Your task to perform on an android device: find which apps use the phone's location Image 0: 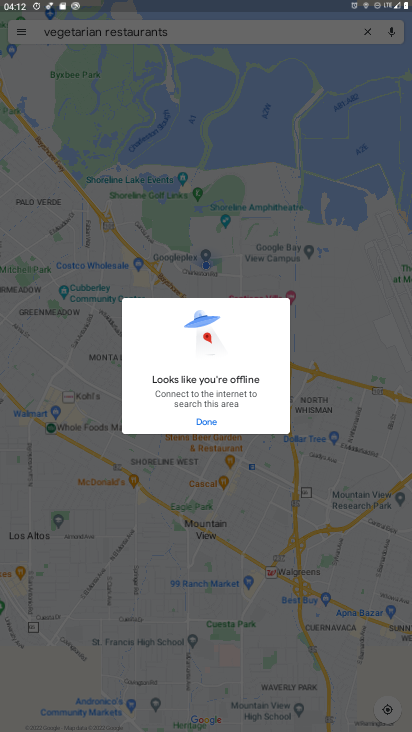
Step 0: press home button
Your task to perform on an android device: find which apps use the phone's location Image 1: 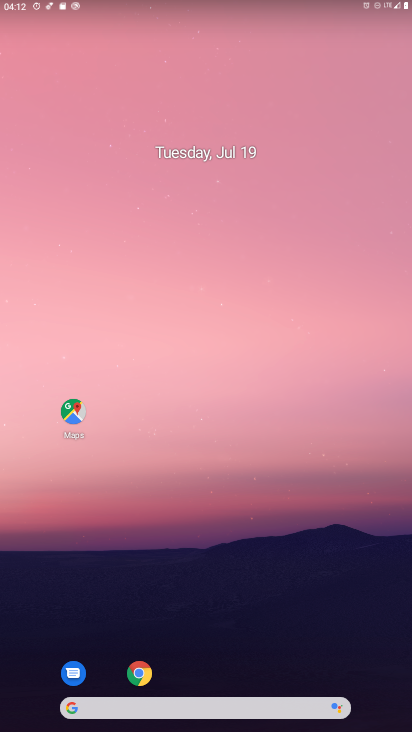
Step 1: drag from (202, 558) to (156, 36)
Your task to perform on an android device: find which apps use the phone's location Image 2: 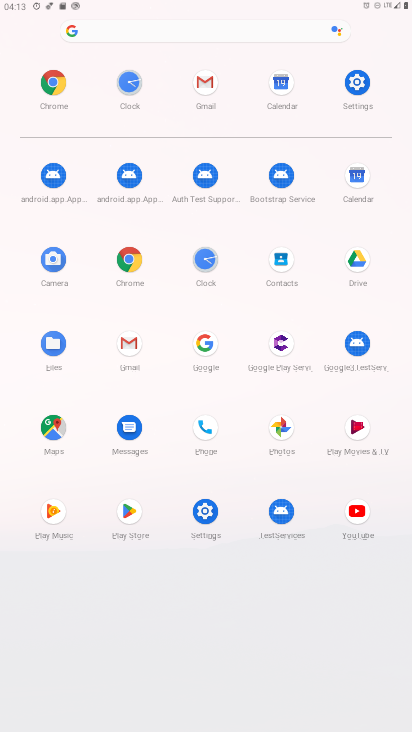
Step 2: click (206, 509)
Your task to perform on an android device: find which apps use the phone's location Image 3: 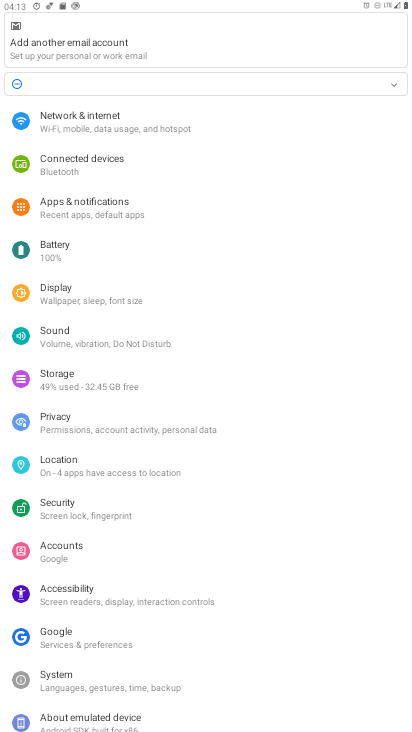
Step 3: click (90, 472)
Your task to perform on an android device: find which apps use the phone's location Image 4: 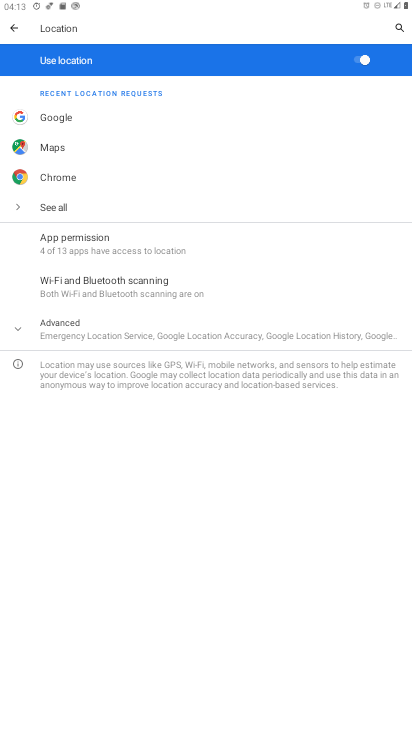
Step 4: click (131, 240)
Your task to perform on an android device: find which apps use the phone's location Image 5: 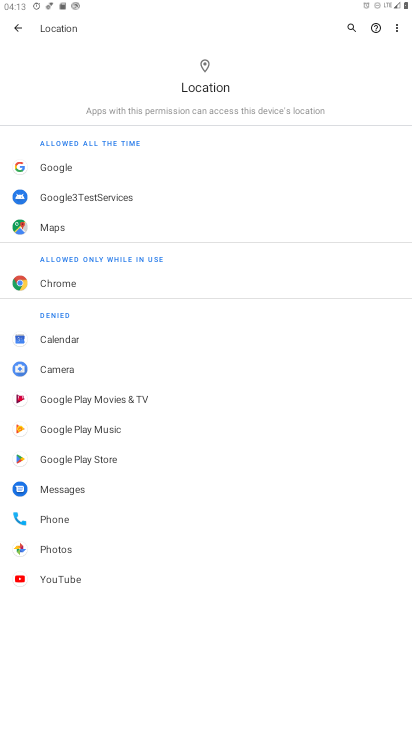
Step 5: task complete